Your task to perform on an android device: turn on sleep mode Image 0: 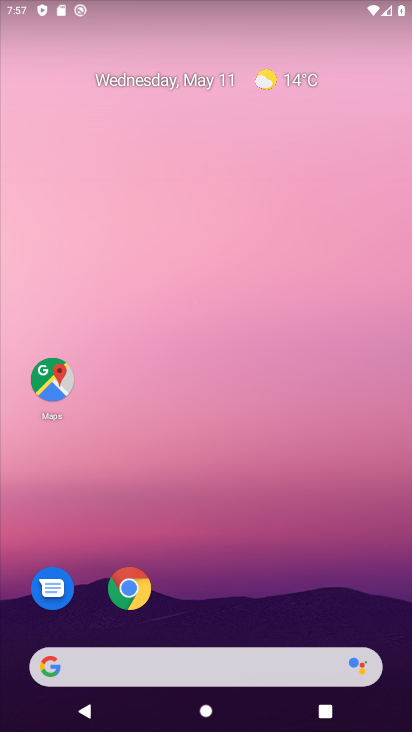
Step 0: drag from (164, 640) to (290, 78)
Your task to perform on an android device: turn on sleep mode Image 1: 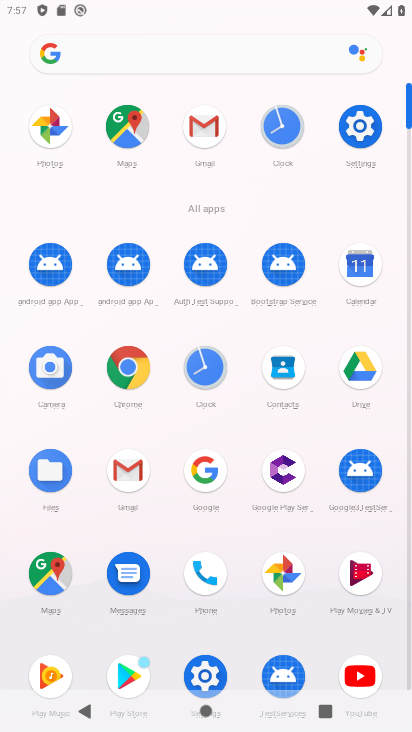
Step 1: click (208, 666)
Your task to perform on an android device: turn on sleep mode Image 2: 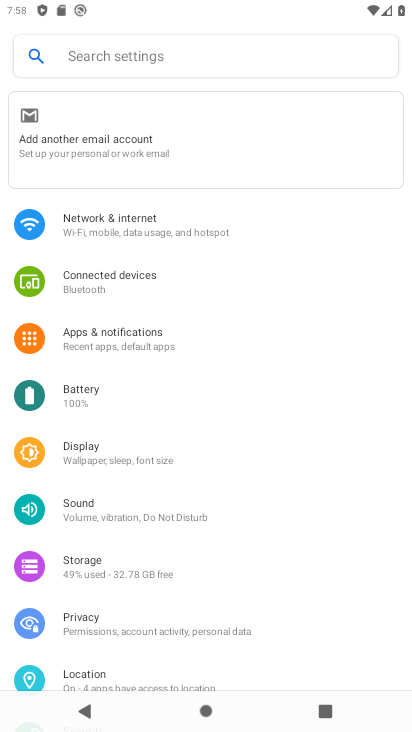
Step 2: click (150, 455)
Your task to perform on an android device: turn on sleep mode Image 3: 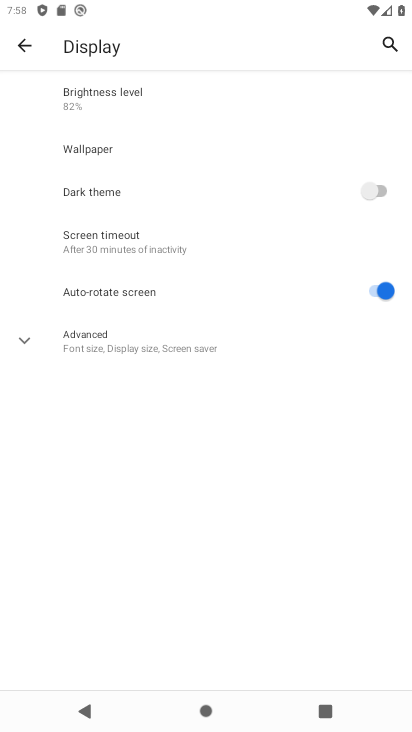
Step 3: click (189, 332)
Your task to perform on an android device: turn on sleep mode Image 4: 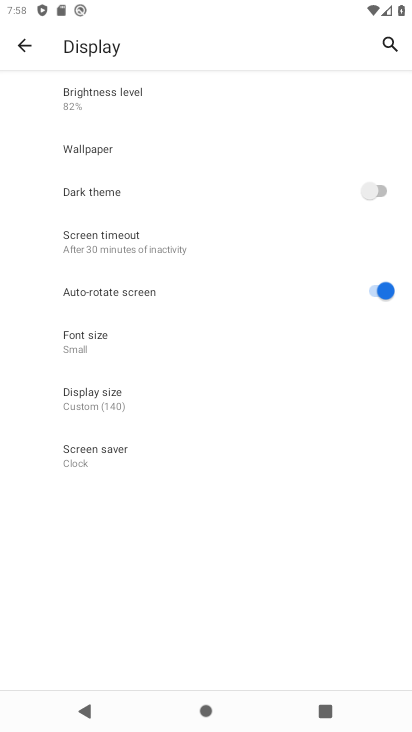
Step 4: task complete